Your task to perform on an android device: find which apps use the phone's location Image 0: 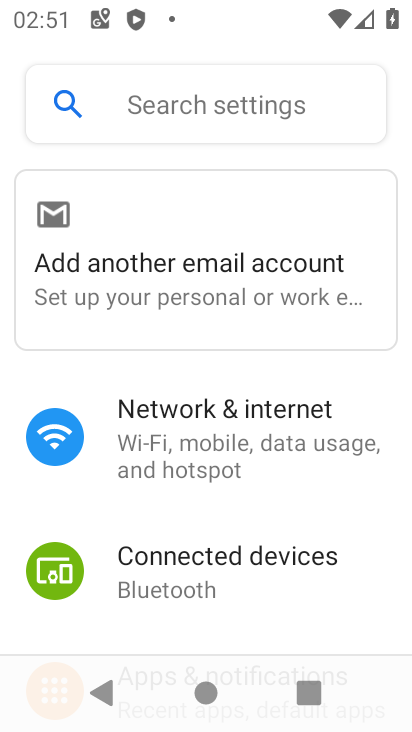
Step 0: press home button
Your task to perform on an android device: find which apps use the phone's location Image 1: 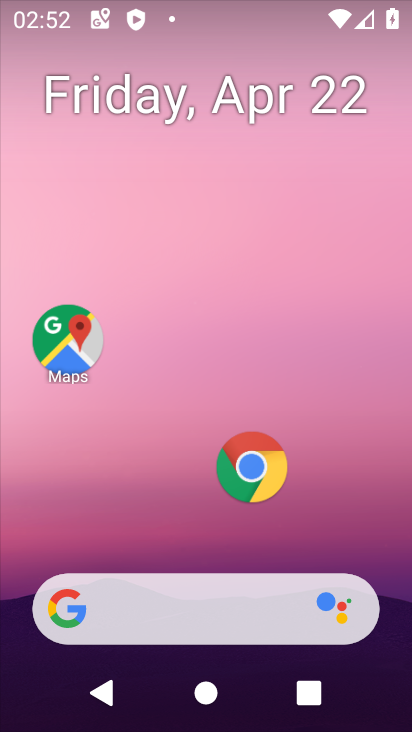
Step 1: drag from (148, 546) to (129, 134)
Your task to perform on an android device: find which apps use the phone's location Image 2: 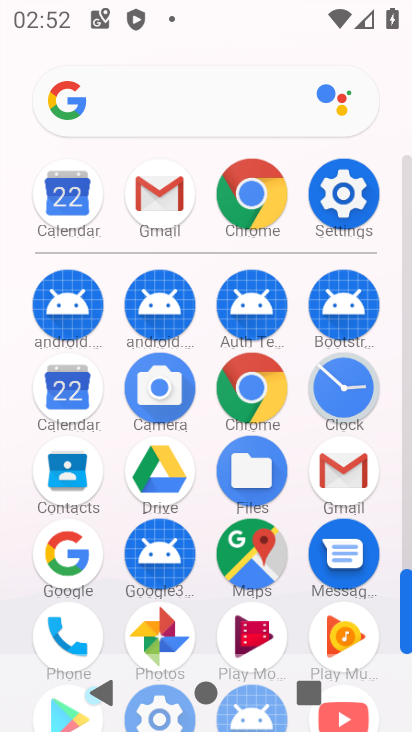
Step 2: click (251, 547)
Your task to perform on an android device: find which apps use the phone's location Image 3: 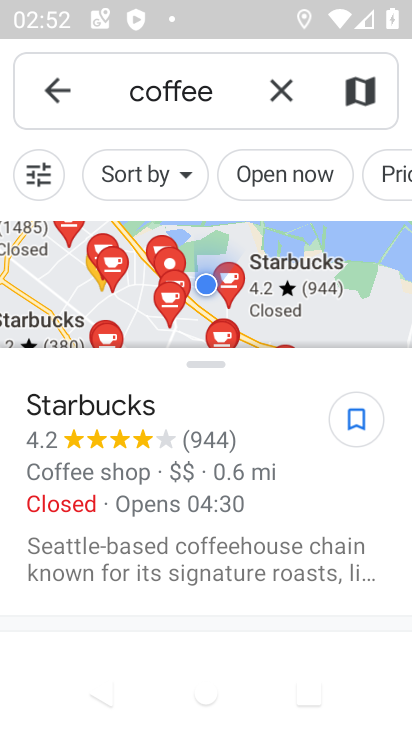
Step 3: task complete